Your task to perform on an android device: refresh tabs in the chrome app Image 0: 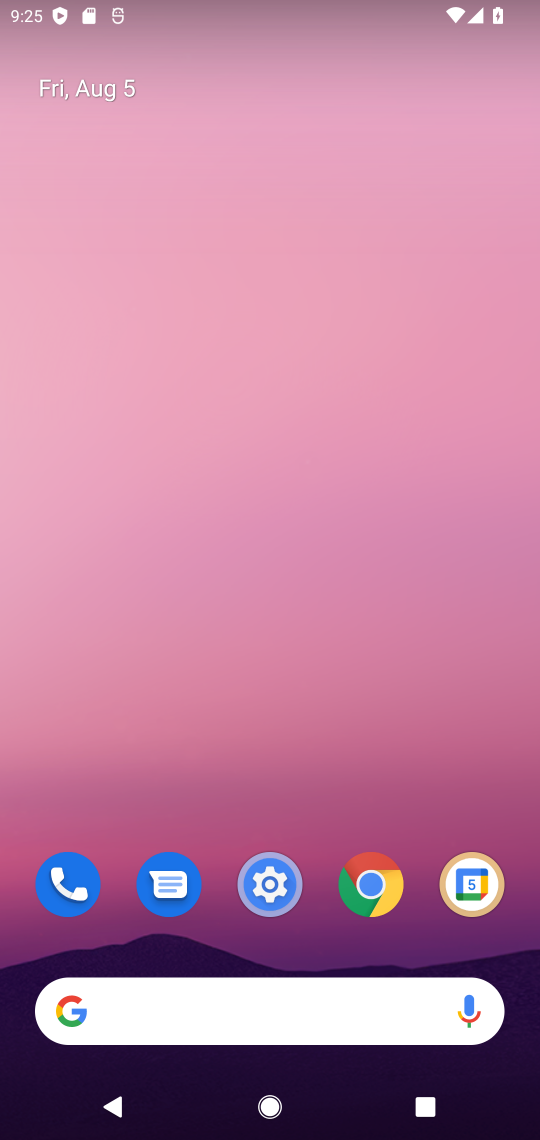
Step 0: drag from (329, 741) to (365, 279)
Your task to perform on an android device: refresh tabs in the chrome app Image 1: 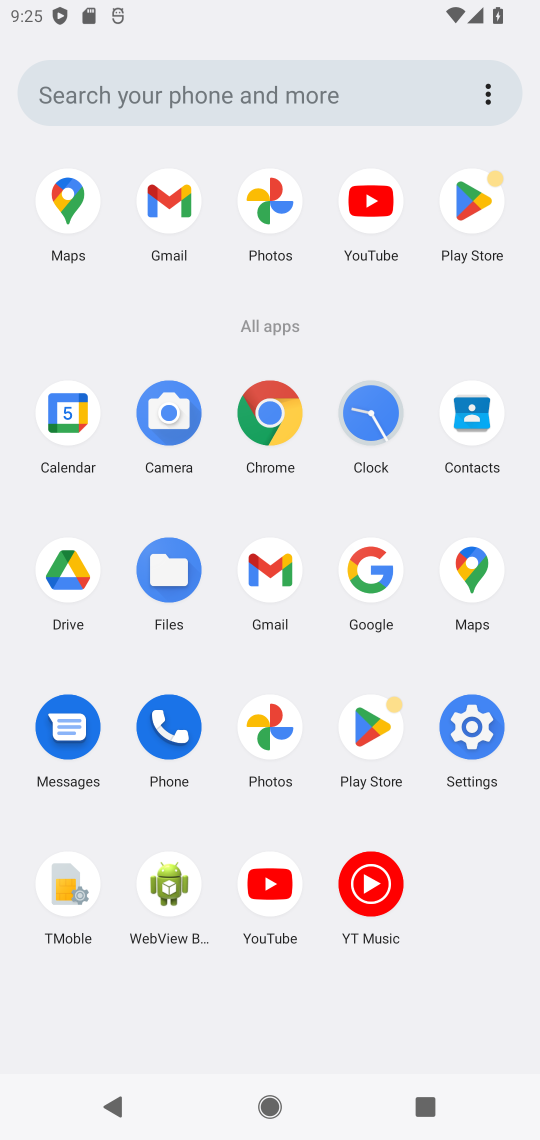
Step 1: click (275, 423)
Your task to perform on an android device: refresh tabs in the chrome app Image 2: 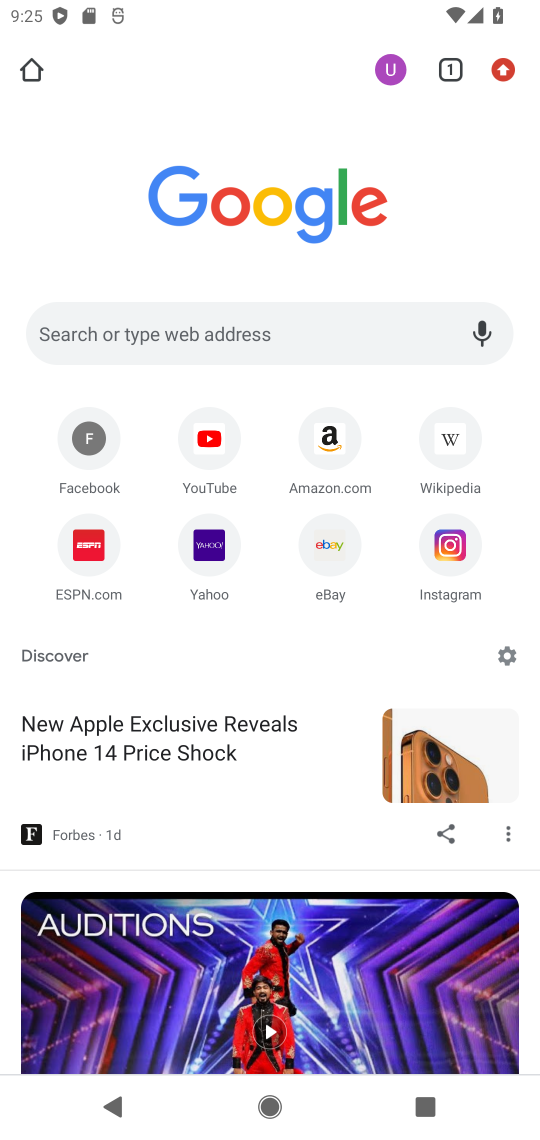
Step 2: click (495, 59)
Your task to perform on an android device: refresh tabs in the chrome app Image 3: 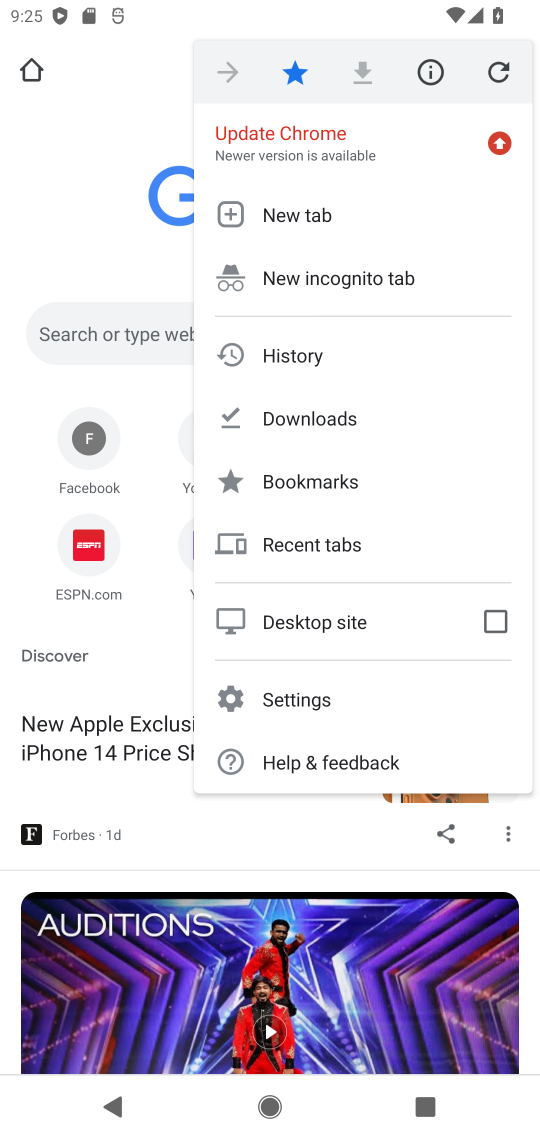
Step 3: click (75, 184)
Your task to perform on an android device: refresh tabs in the chrome app Image 4: 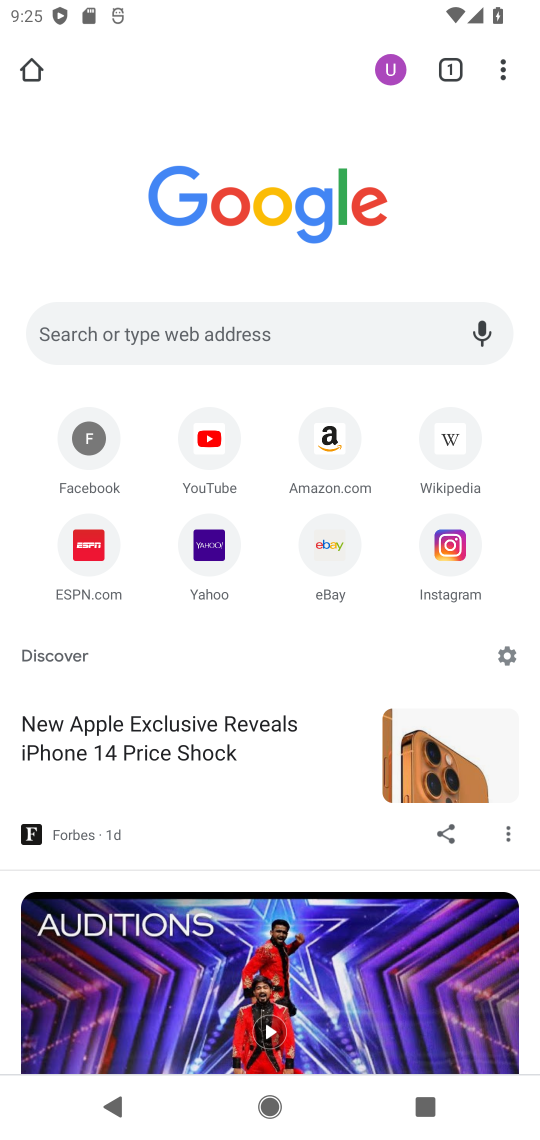
Step 4: click (497, 67)
Your task to perform on an android device: refresh tabs in the chrome app Image 5: 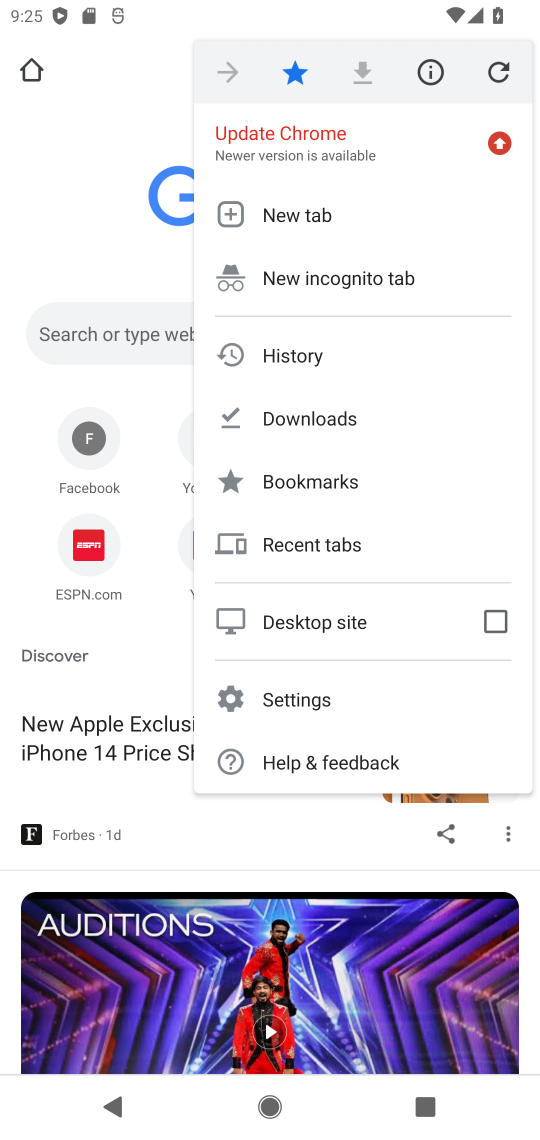
Step 5: click (498, 75)
Your task to perform on an android device: refresh tabs in the chrome app Image 6: 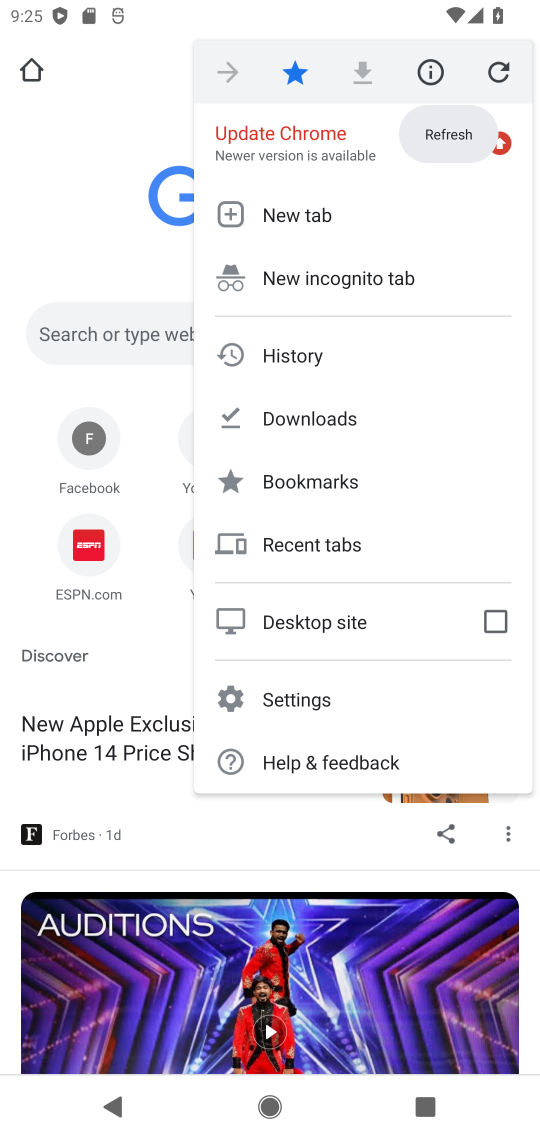
Step 6: task complete